Your task to perform on an android device: Search for logitech g903 on bestbuy, select the first entry, and add it to the cart. Image 0: 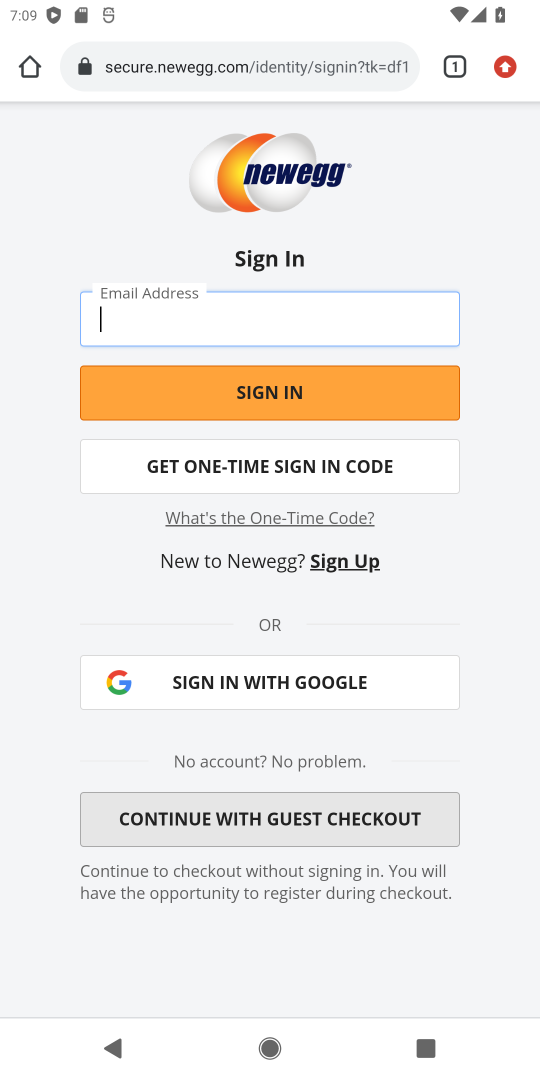
Step 0: click (260, 81)
Your task to perform on an android device: Search for logitech g903 on bestbuy, select the first entry, and add it to the cart. Image 1: 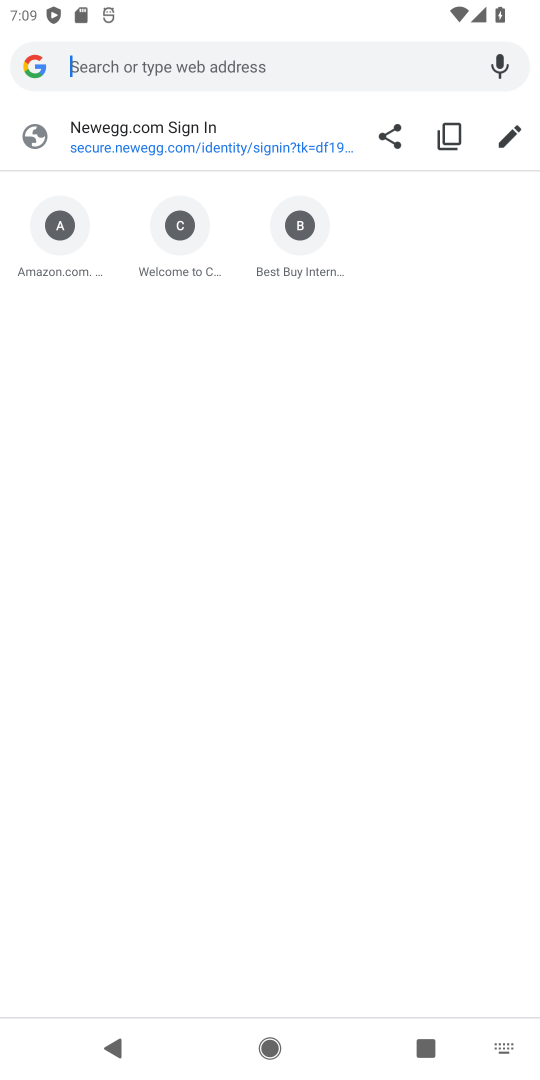
Step 1: press home button
Your task to perform on an android device: Search for logitech g903 on bestbuy, select the first entry, and add it to the cart. Image 2: 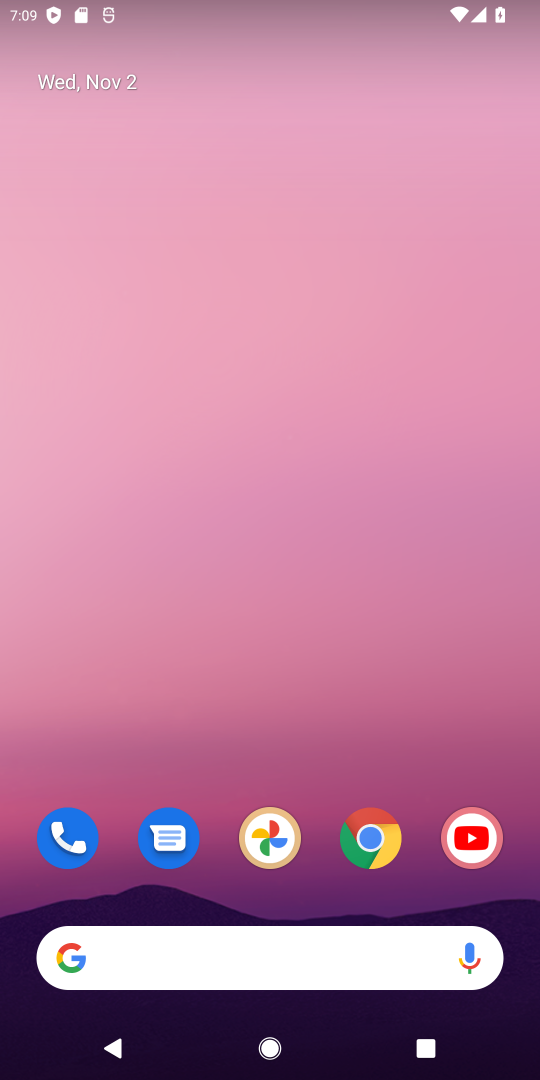
Step 2: click (380, 848)
Your task to perform on an android device: Search for logitech g903 on bestbuy, select the first entry, and add it to the cart. Image 3: 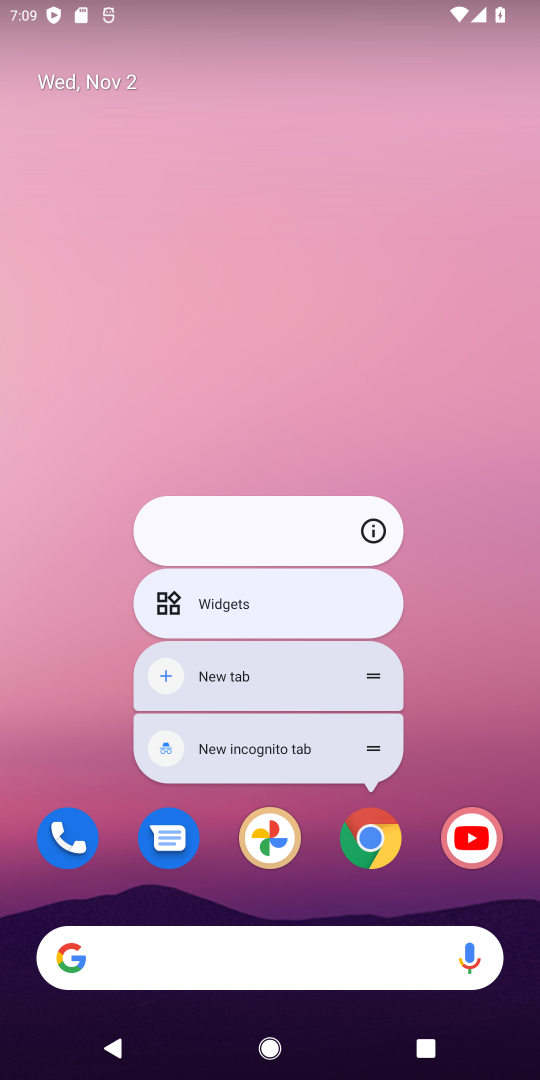
Step 3: click (393, 835)
Your task to perform on an android device: Search for logitech g903 on bestbuy, select the first entry, and add it to the cart. Image 4: 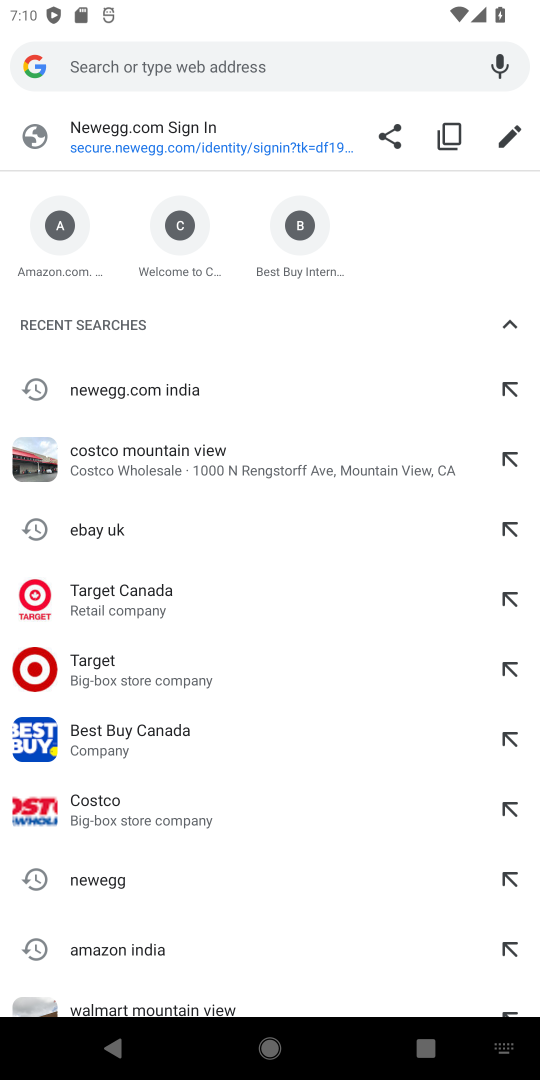
Step 4: type "bestbuy"
Your task to perform on an android device: Search for logitech g903 on bestbuy, select the first entry, and add it to the cart. Image 5: 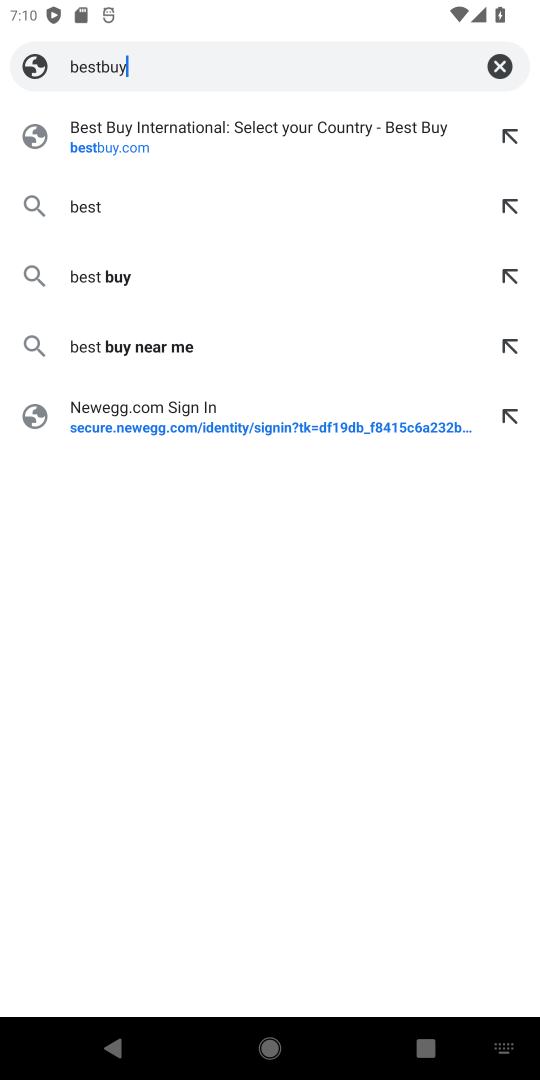
Step 5: type ""
Your task to perform on an android device: Search for logitech g903 on bestbuy, select the first entry, and add it to the cart. Image 6: 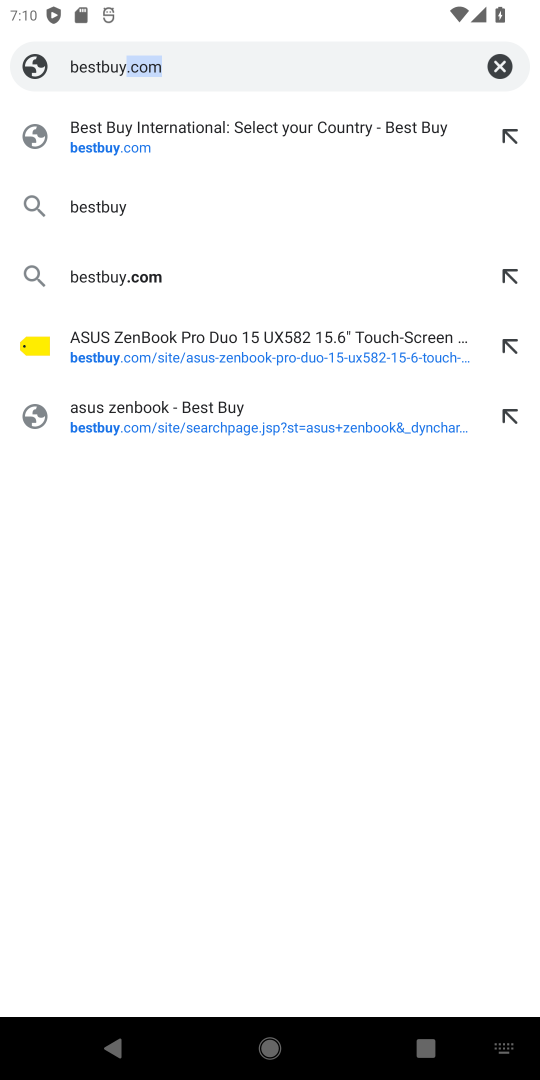
Step 6: press enter
Your task to perform on an android device: Search for logitech g903 on bestbuy, select the first entry, and add it to the cart. Image 7: 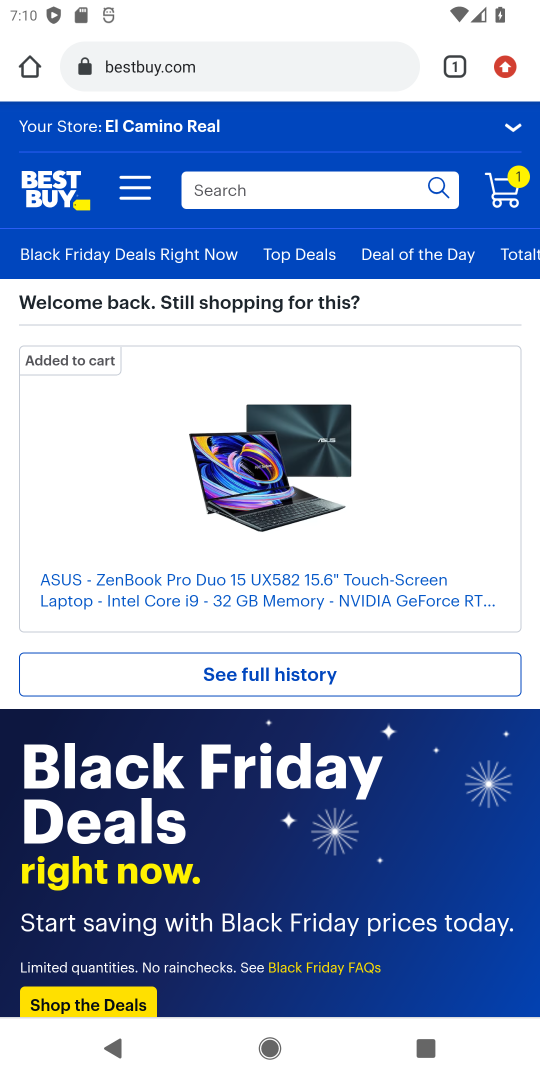
Step 7: click (261, 178)
Your task to perform on an android device: Search for logitech g903 on bestbuy, select the first entry, and add it to the cart. Image 8: 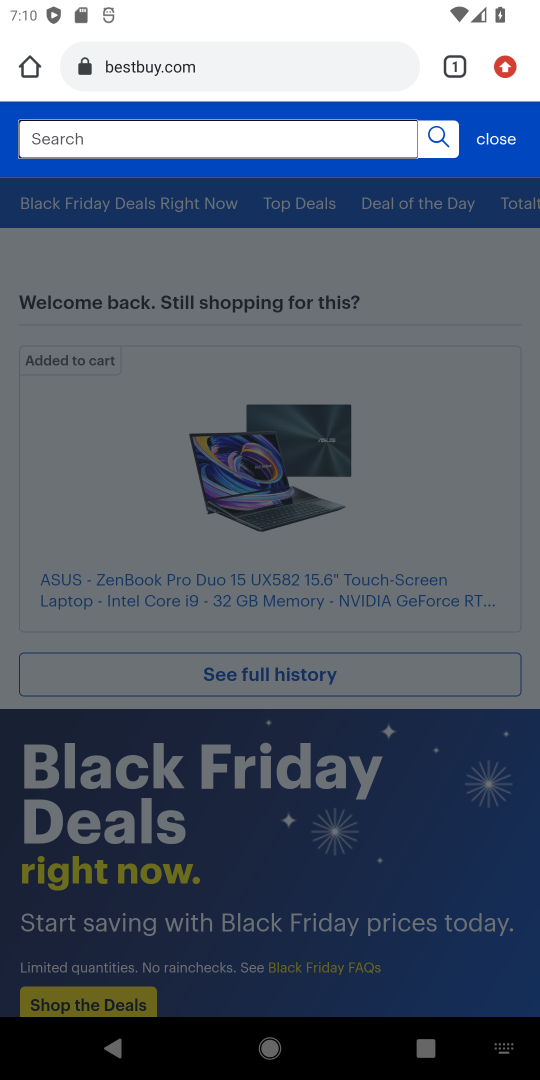
Step 8: type "logitech g903"
Your task to perform on an android device: Search for logitech g903 on bestbuy, select the first entry, and add it to the cart. Image 9: 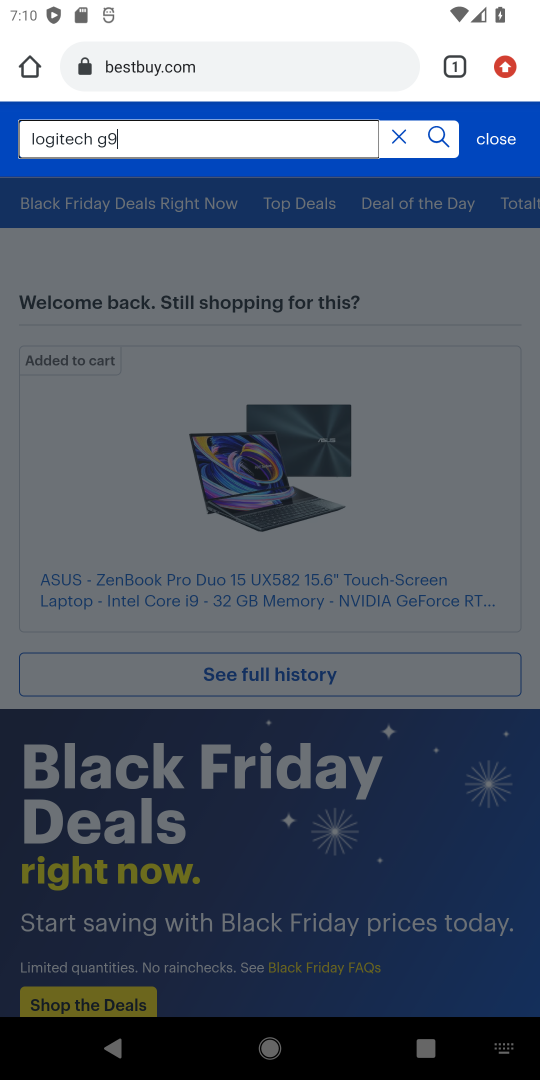
Step 9: type ""
Your task to perform on an android device: Search for logitech g903 on bestbuy, select the first entry, and add it to the cart. Image 10: 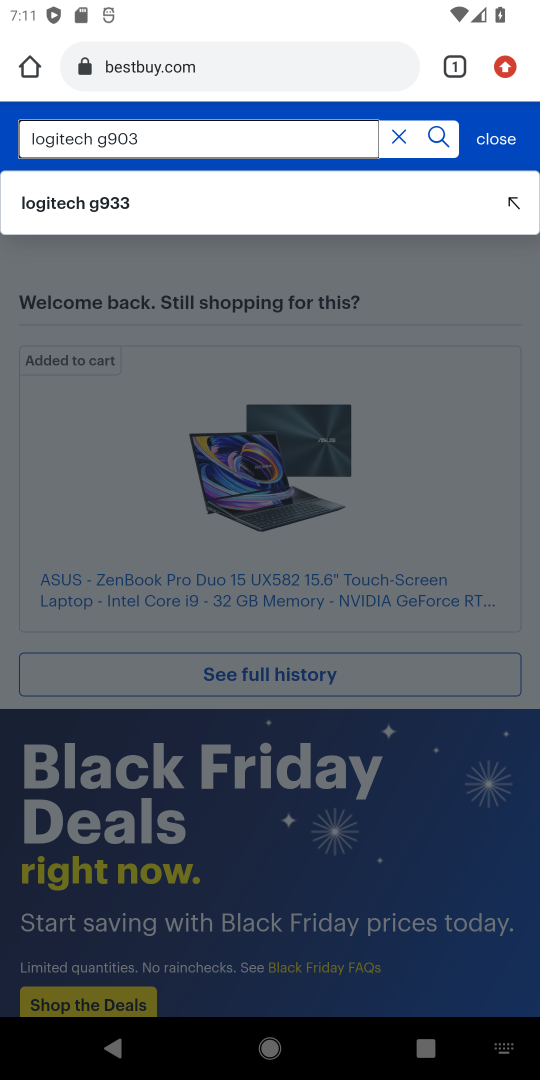
Step 10: press enter
Your task to perform on an android device: Search for logitech g903 on bestbuy, select the first entry, and add it to the cart. Image 11: 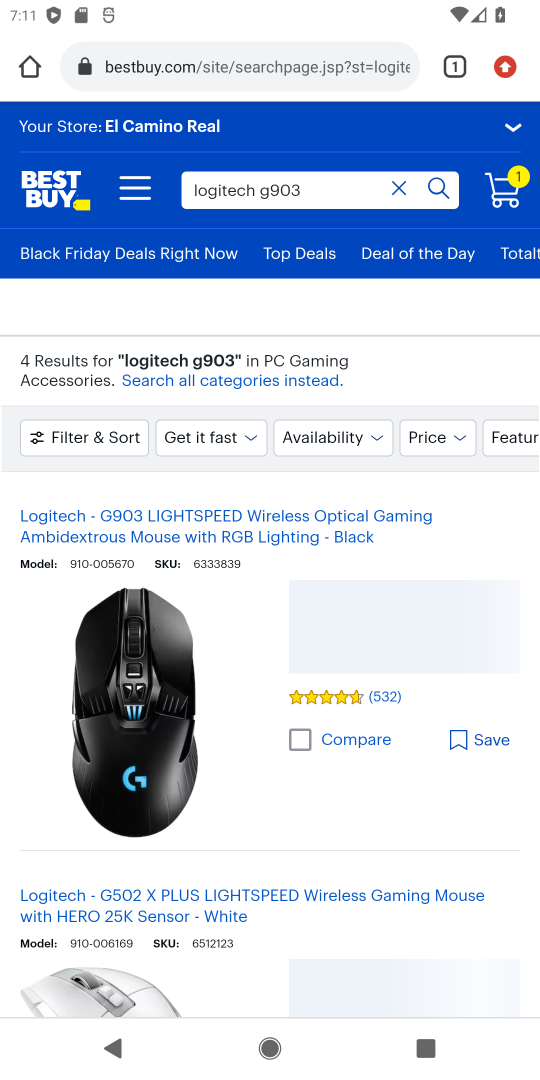
Step 11: click (228, 524)
Your task to perform on an android device: Search for logitech g903 on bestbuy, select the first entry, and add it to the cart. Image 12: 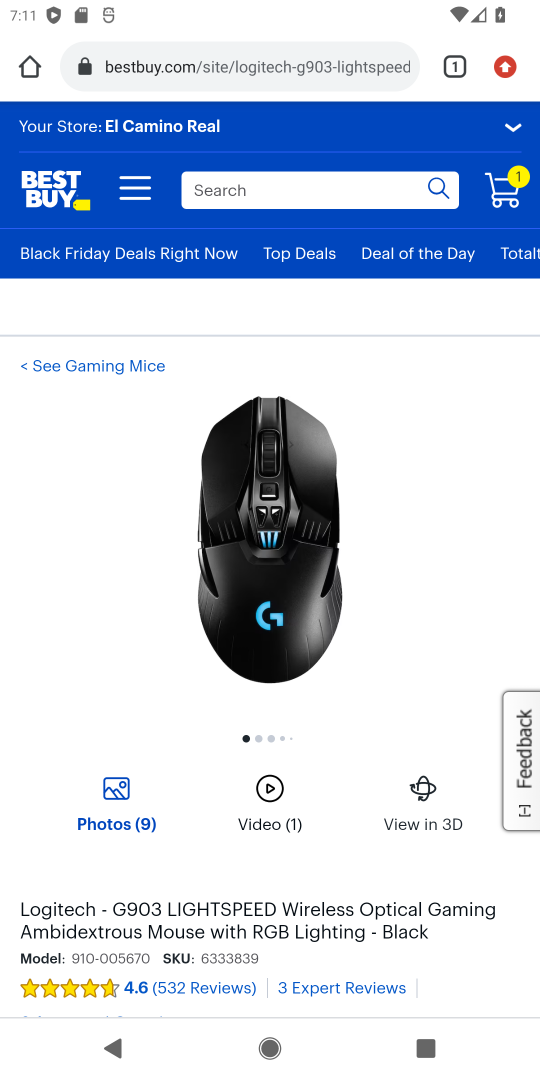
Step 12: drag from (324, 897) to (297, 302)
Your task to perform on an android device: Search for logitech g903 on bestbuy, select the first entry, and add it to the cart. Image 13: 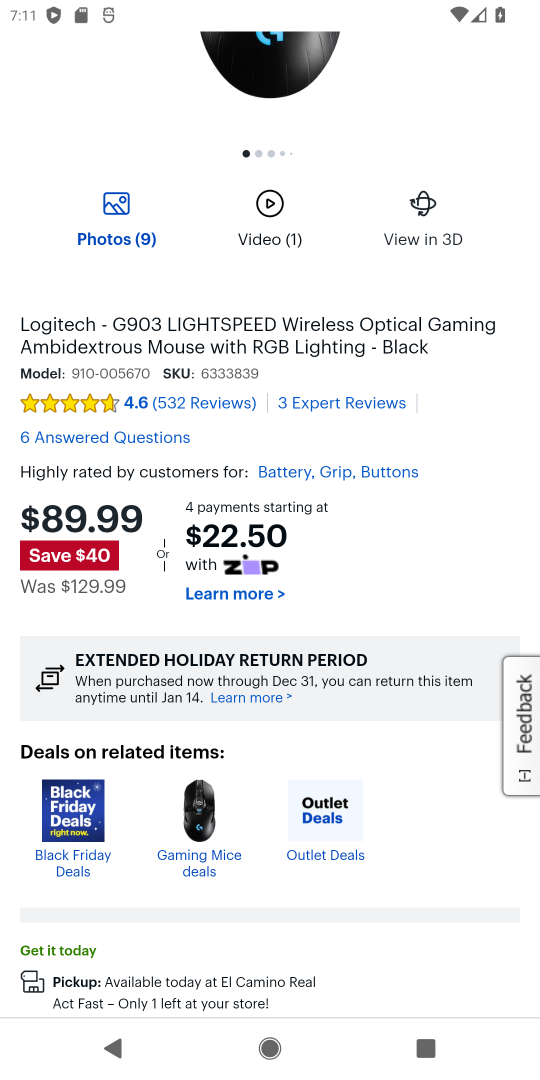
Step 13: drag from (342, 934) to (347, 422)
Your task to perform on an android device: Search for logitech g903 on bestbuy, select the first entry, and add it to the cart. Image 14: 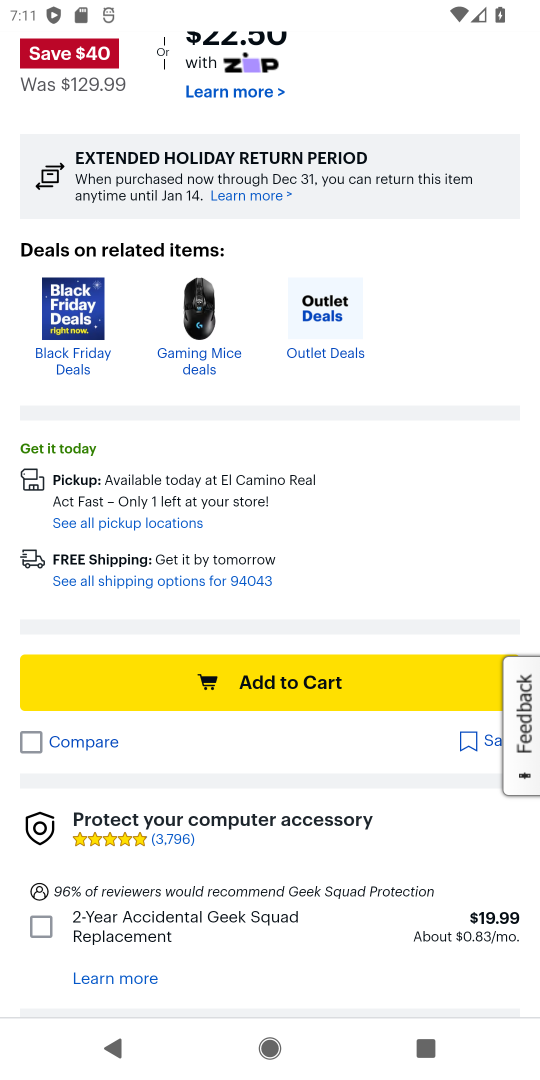
Step 14: click (317, 684)
Your task to perform on an android device: Search for logitech g903 on bestbuy, select the first entry, and add it to the cart. Image 15: 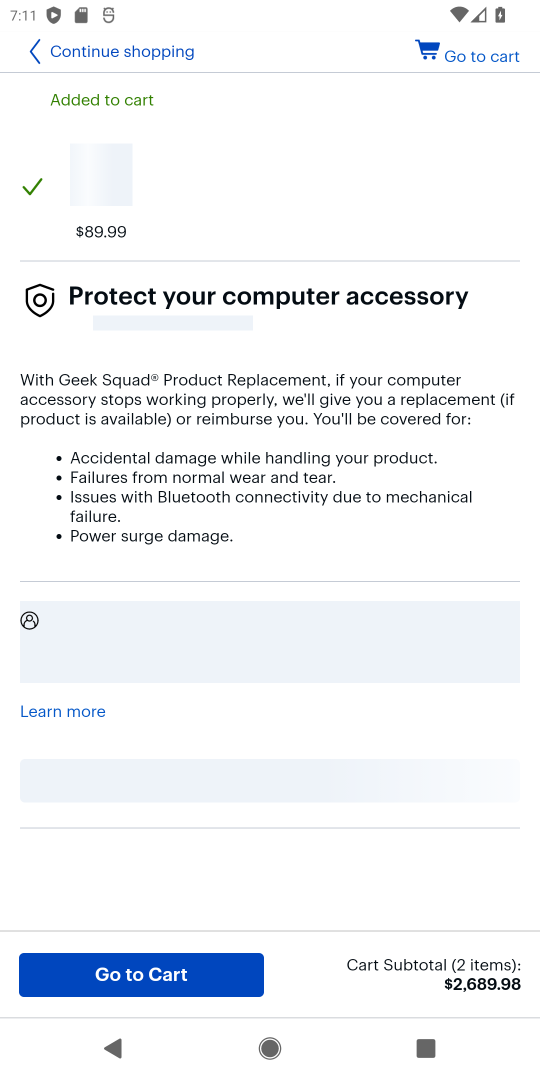
Step 15: click (144, 971)
Your task to perform on an android device: Search for logitech g903 on bestbuy, select the first entry, and add it to the cart. Image 16: 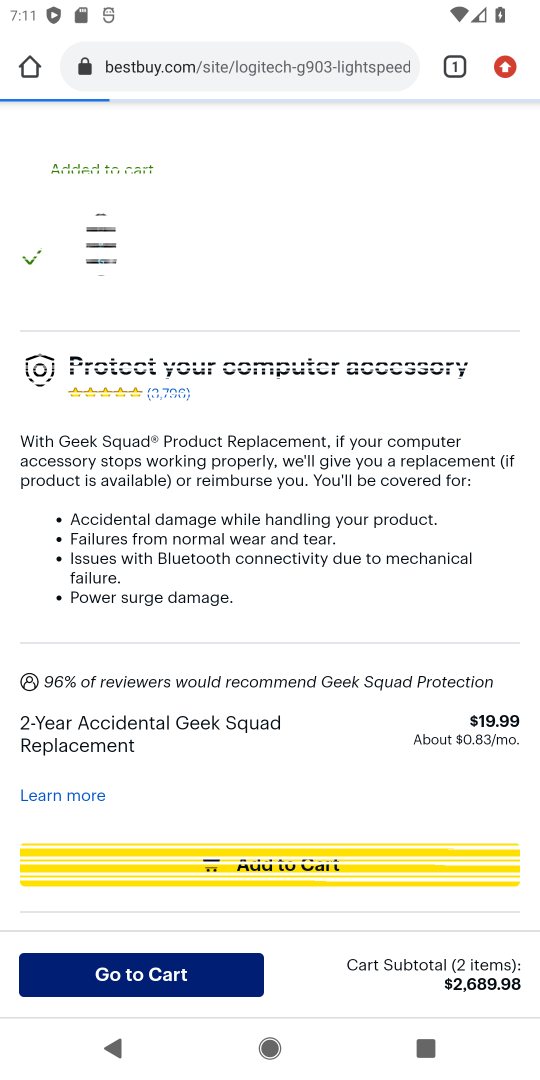
Step 16: task complete